Your task to perform on an android device: Open accessibility settings Image 0: 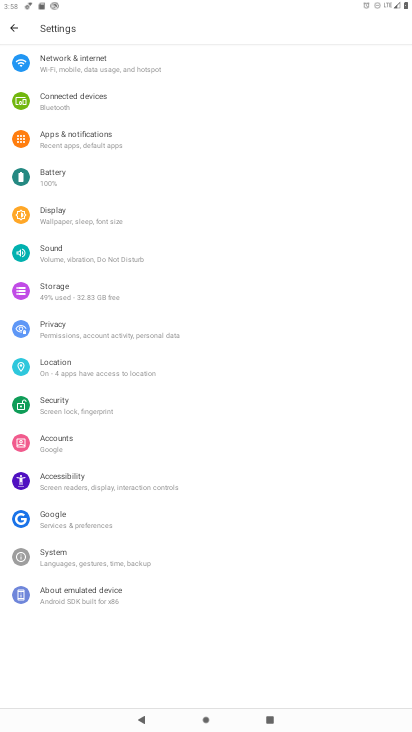
Step 0: press home button
Your task to perform on an android device: Open accessibility settings Image 1: 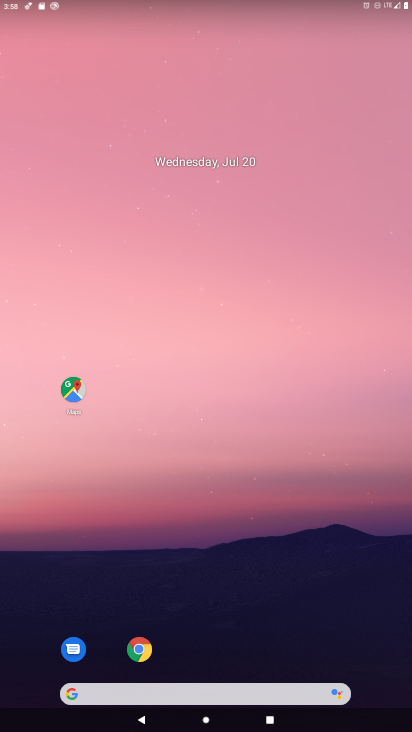
Step 1: drag from (169, 689) to (185, 27)
Your task to perform on an android device: Open accessibility settings Image 2: 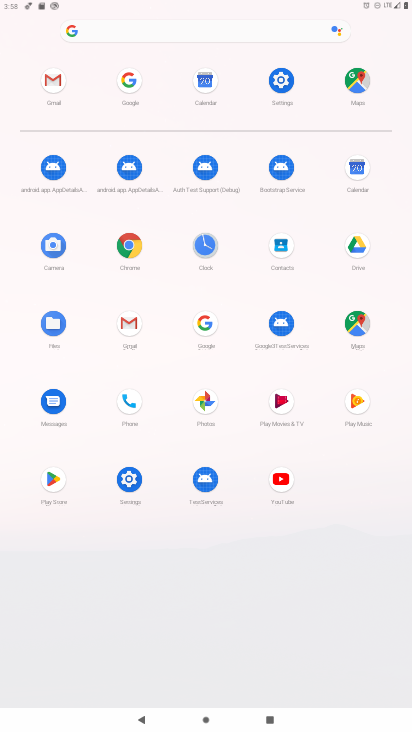
Step 2: click (282, 79)
Your task to perform on an android device: Open accessibility settings Image 3: 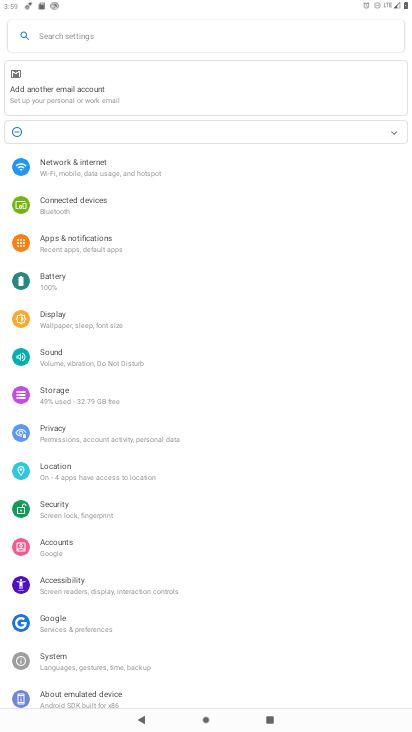
Step 3: click (60, 584)
Your task to perform on an android device: Open accessibility settings Image 4: 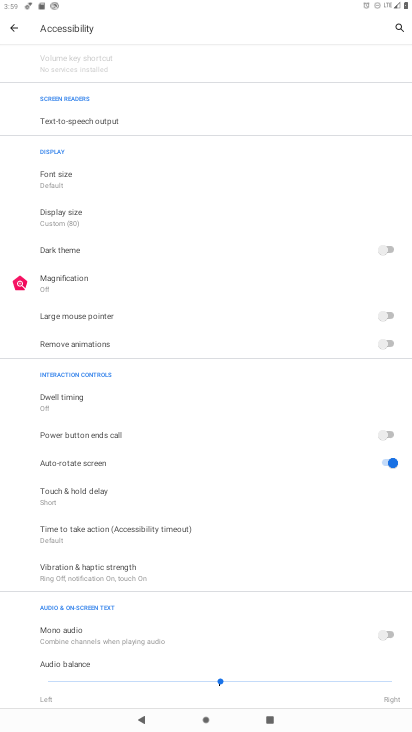
Step 4: task complete